Your task to perform on an android device: Show me popular videos on Youtube Image 0: 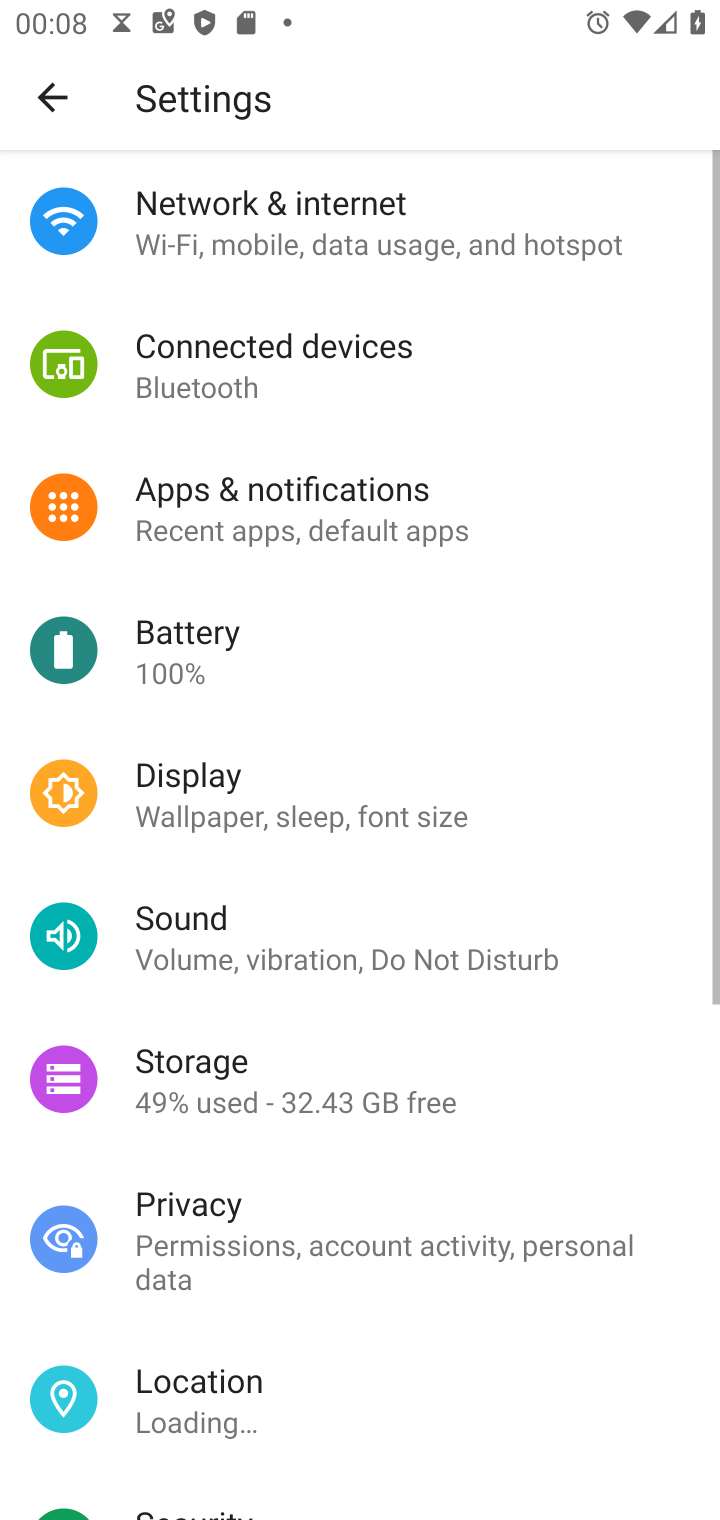
Step 0: press home button
Your task to perform on an android device: Show me popular videos on Youtube Image 1: 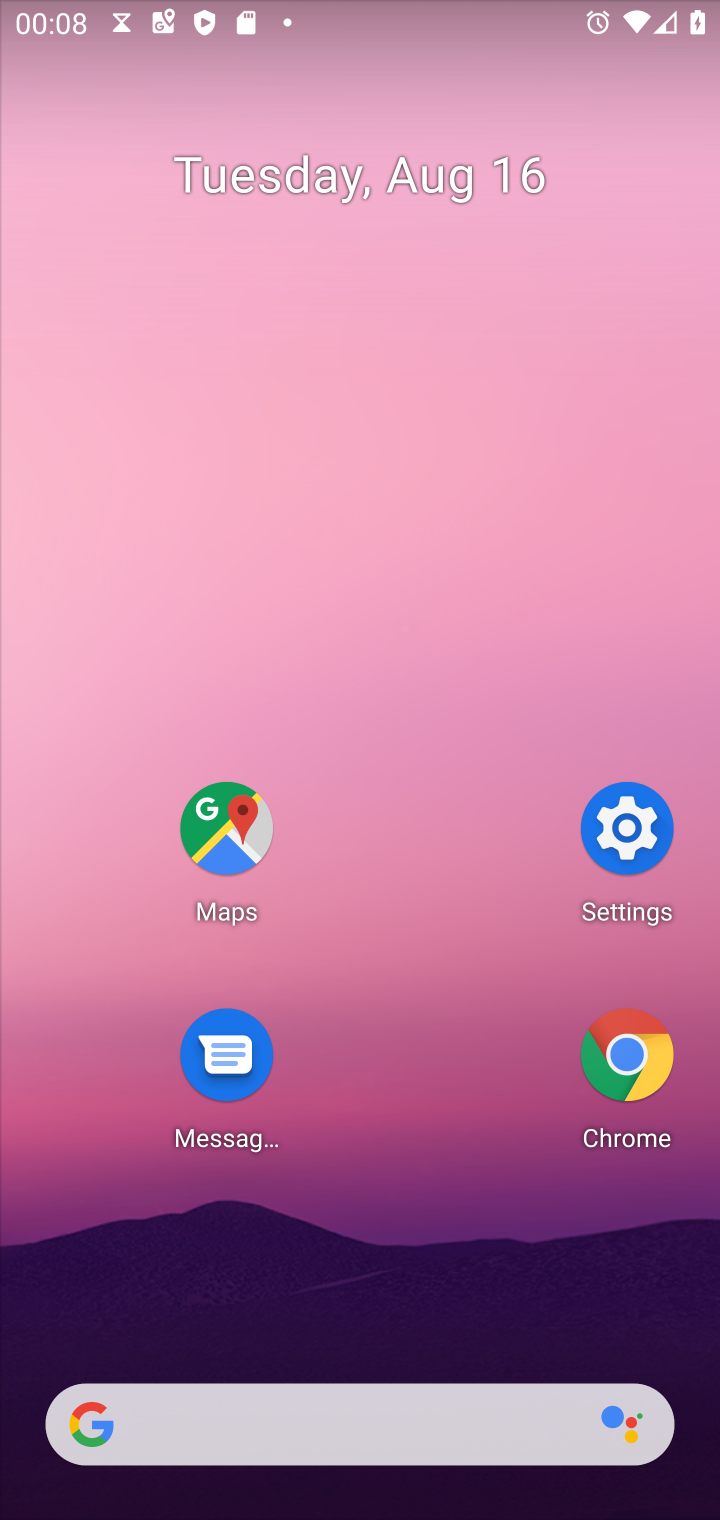
Step 1: drag from (442, 1175) to (497, 121)
Your task to perform on an android device: Show me popular videos on Youtube Image 2: 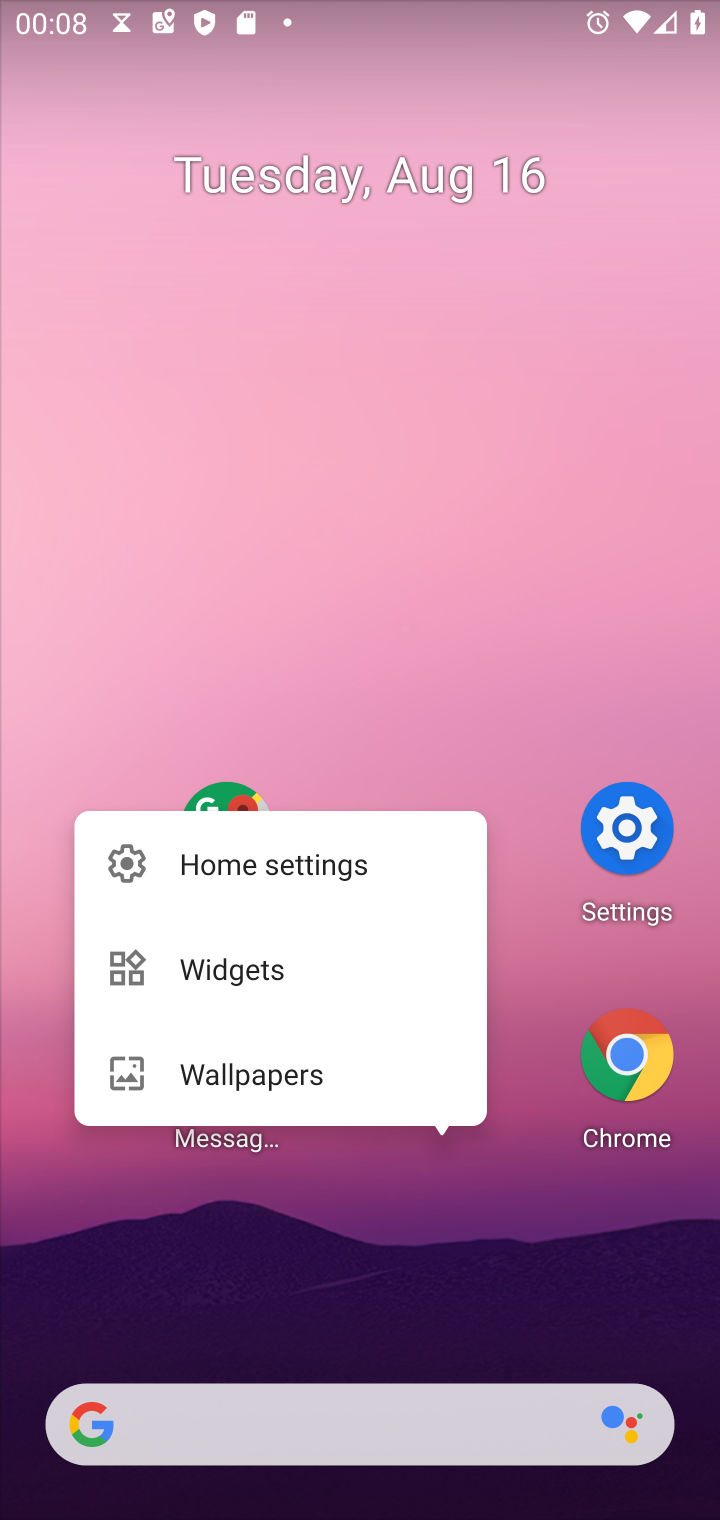
Step 2: drag from (415, 924) to (376, 110)
Your task to perform on an android device: Show me popular videos on Youtube Image 3: 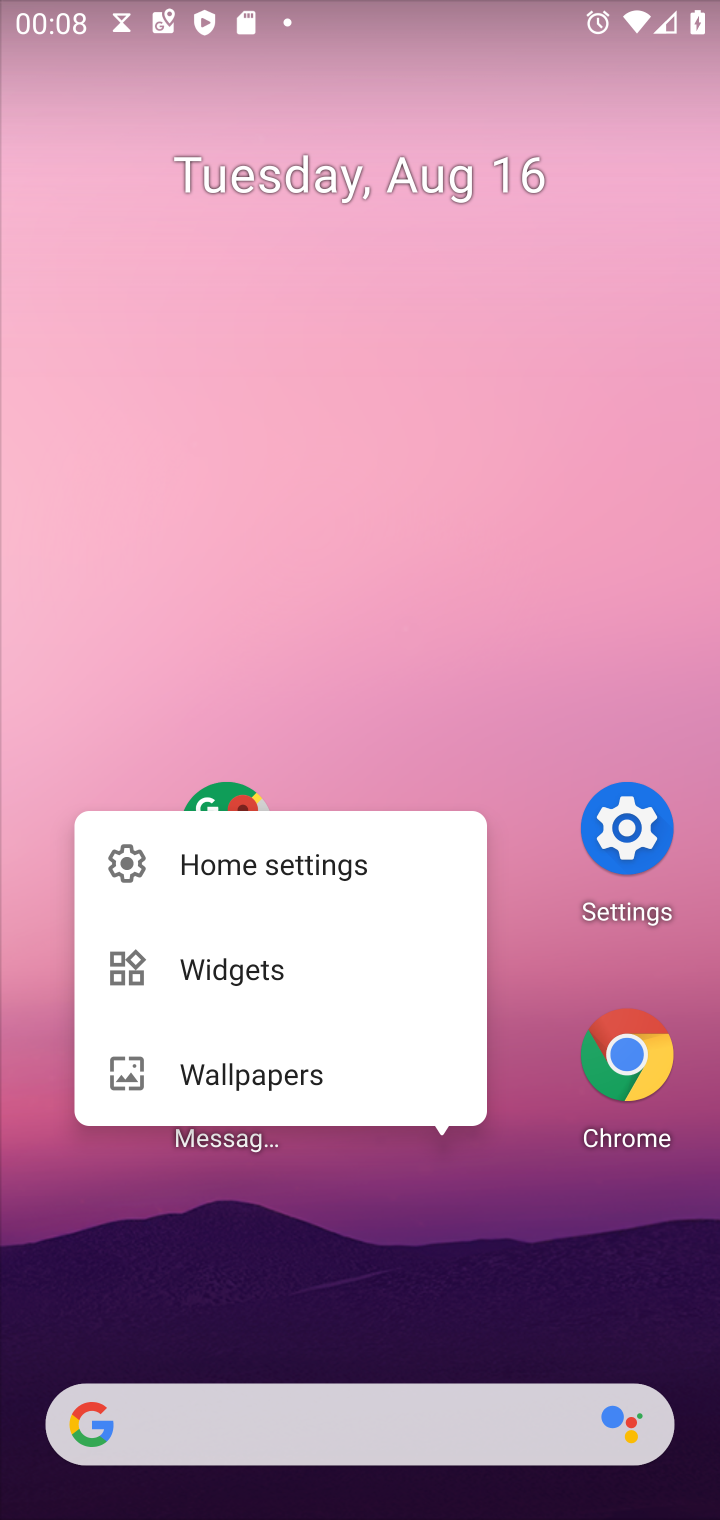
Step 3: press home button
Your task to perform on an android device: Show me popular videos on Youtube Image 4: 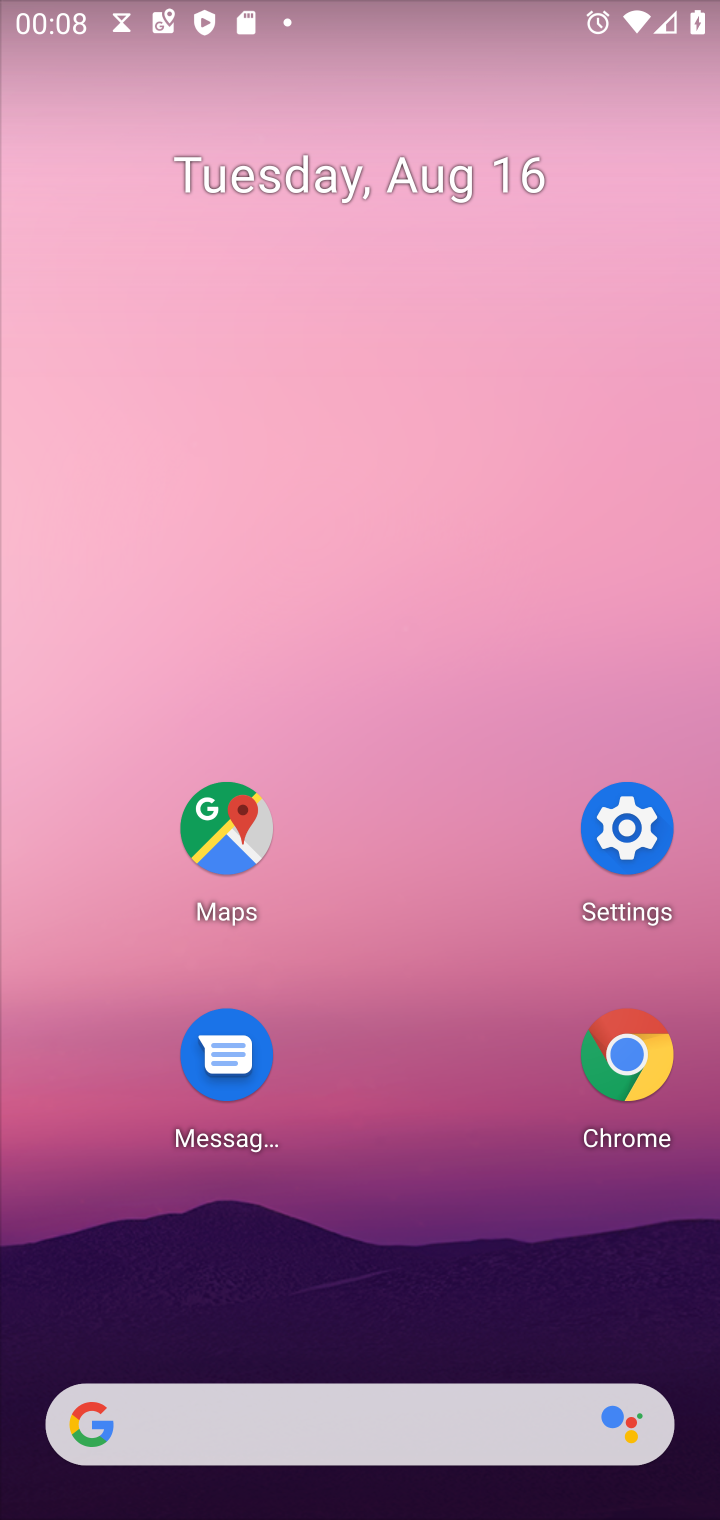
Step 4: drag from (374, 1316) to (435, 213)
Your task to perform on an android device: Show me popular videos on Youtube Image 5: 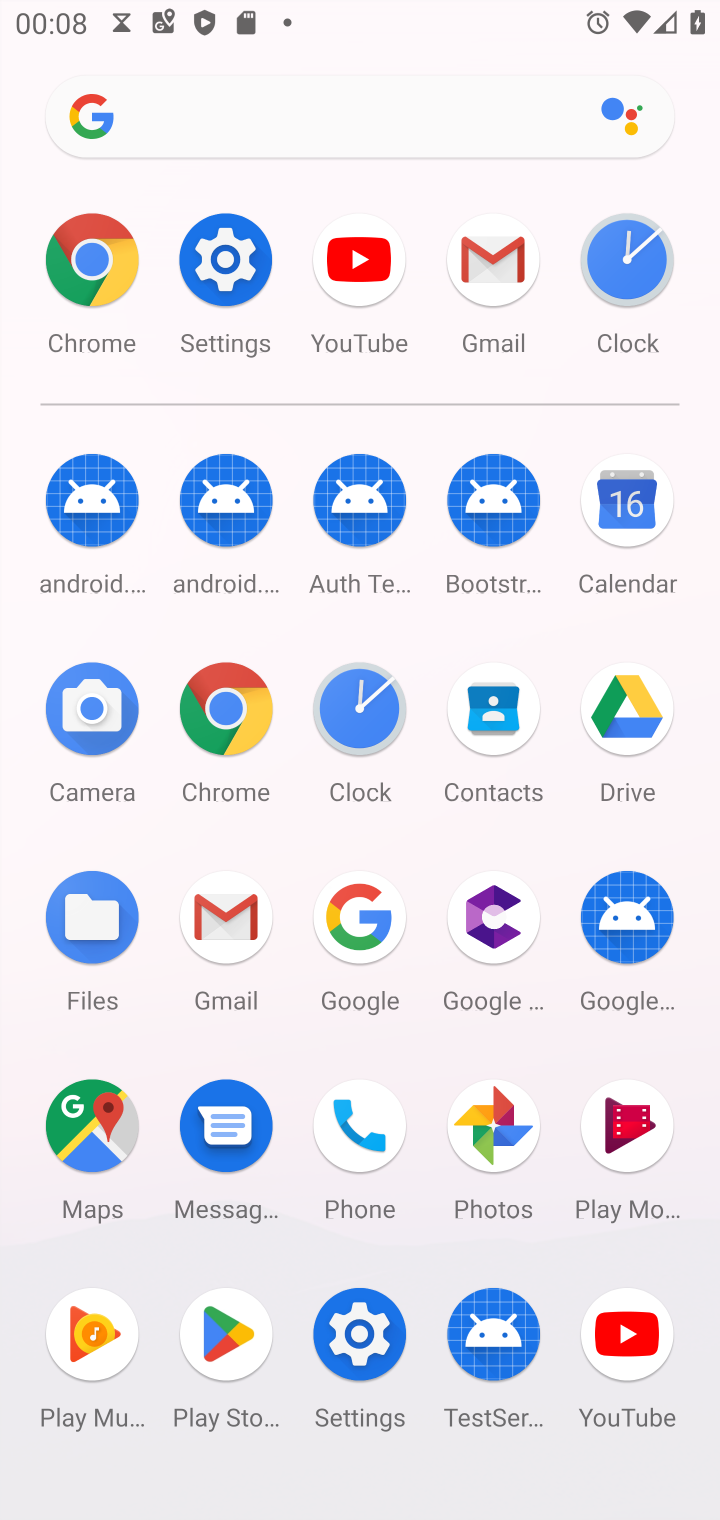
Step 5: click (613, 1333)
Your task to perform on an android device: Show me popular videos on Youtube Image 6: 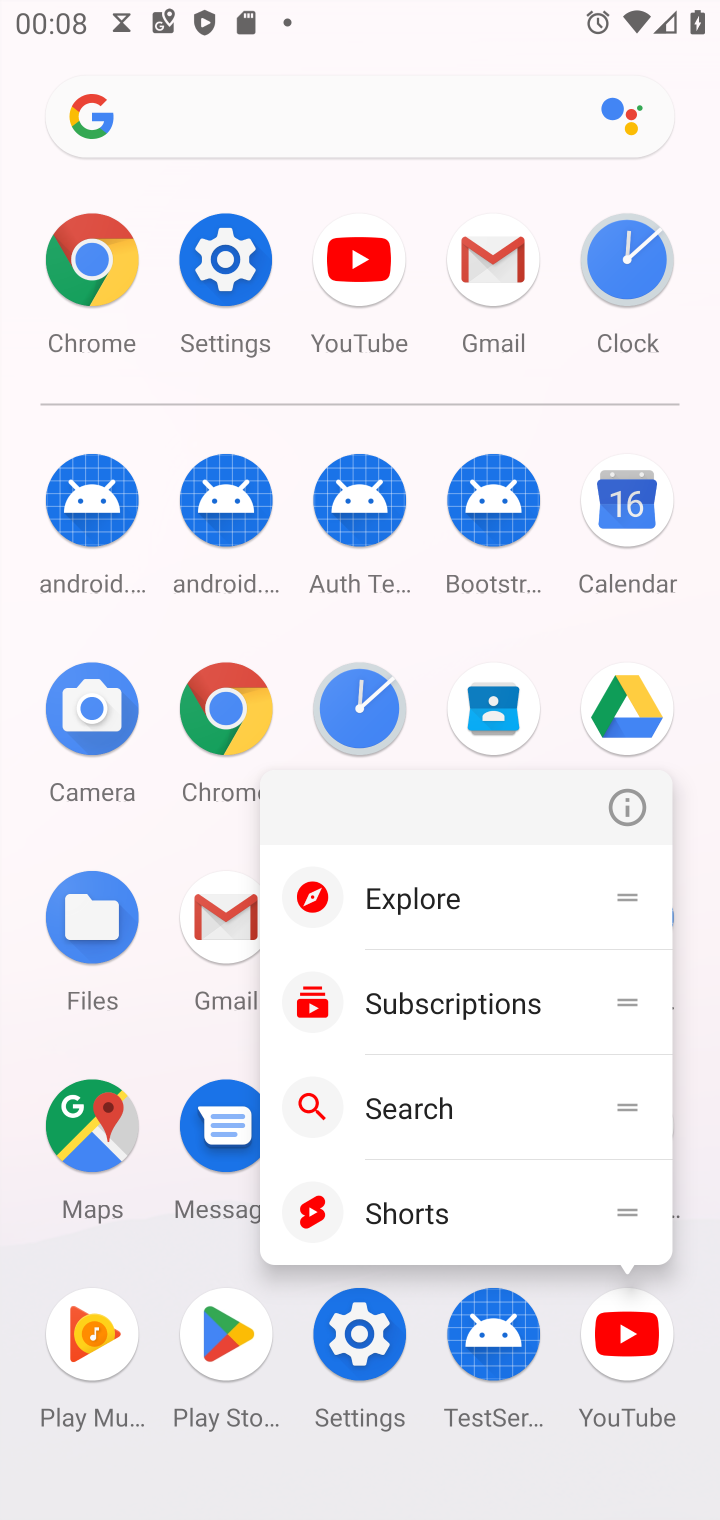
Step 6: click (613, 1333)
Your task to perform on an android device: Show me popular videos on Youtube Image 7: 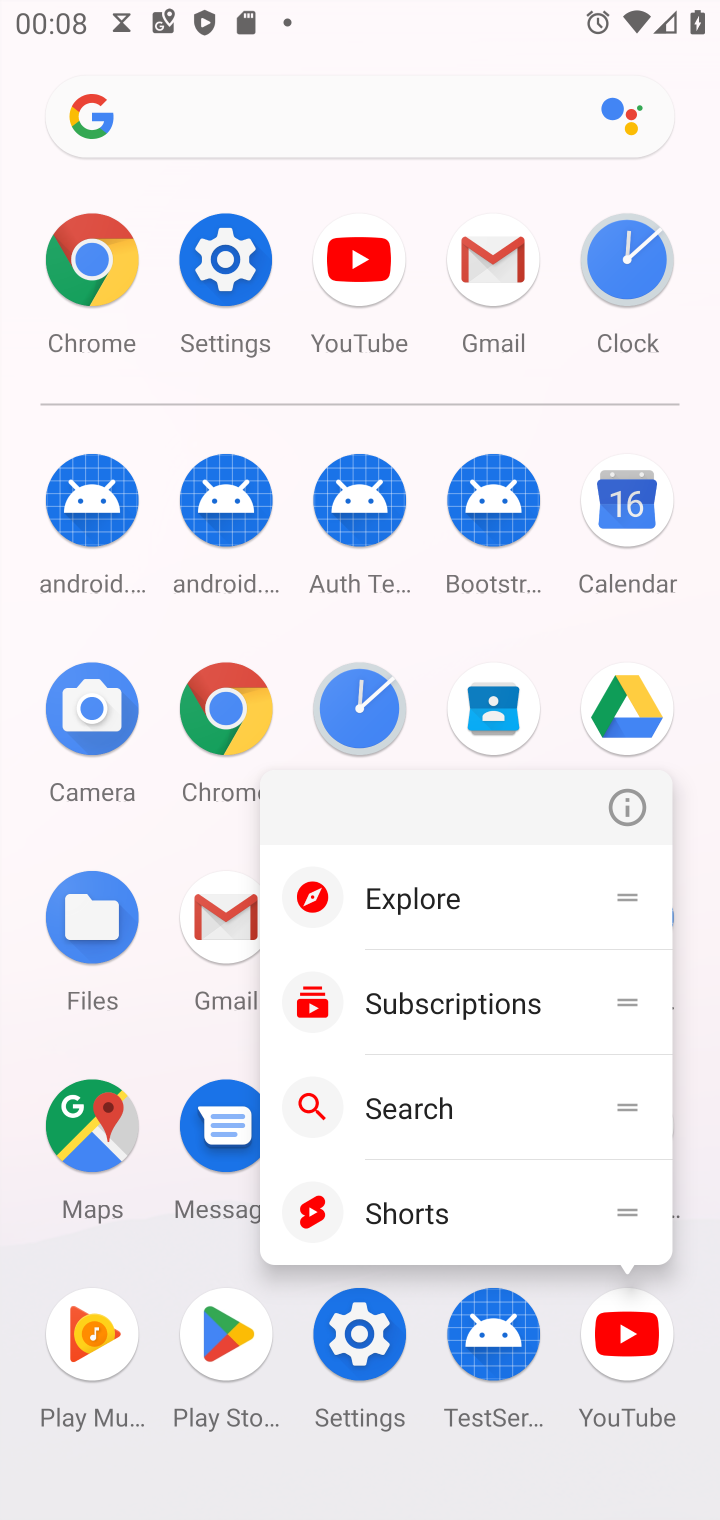
Step 7: click (613, 1333)
Your task to perform on an android device: Show me popular videos on Youtube Image 8: 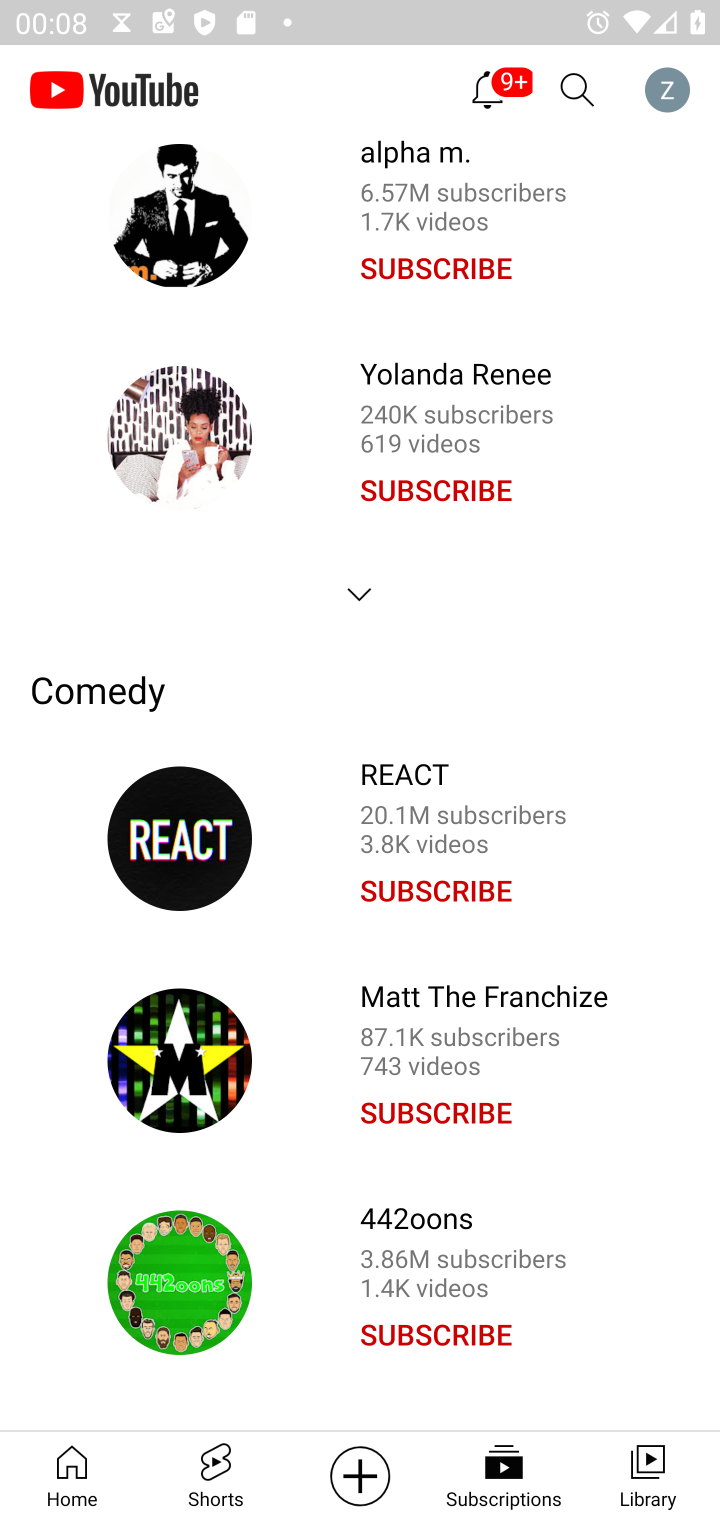
Step 8: click (69, 1467)
Your task to perform on an android device: Show me popular videos on Youtube Image 9: 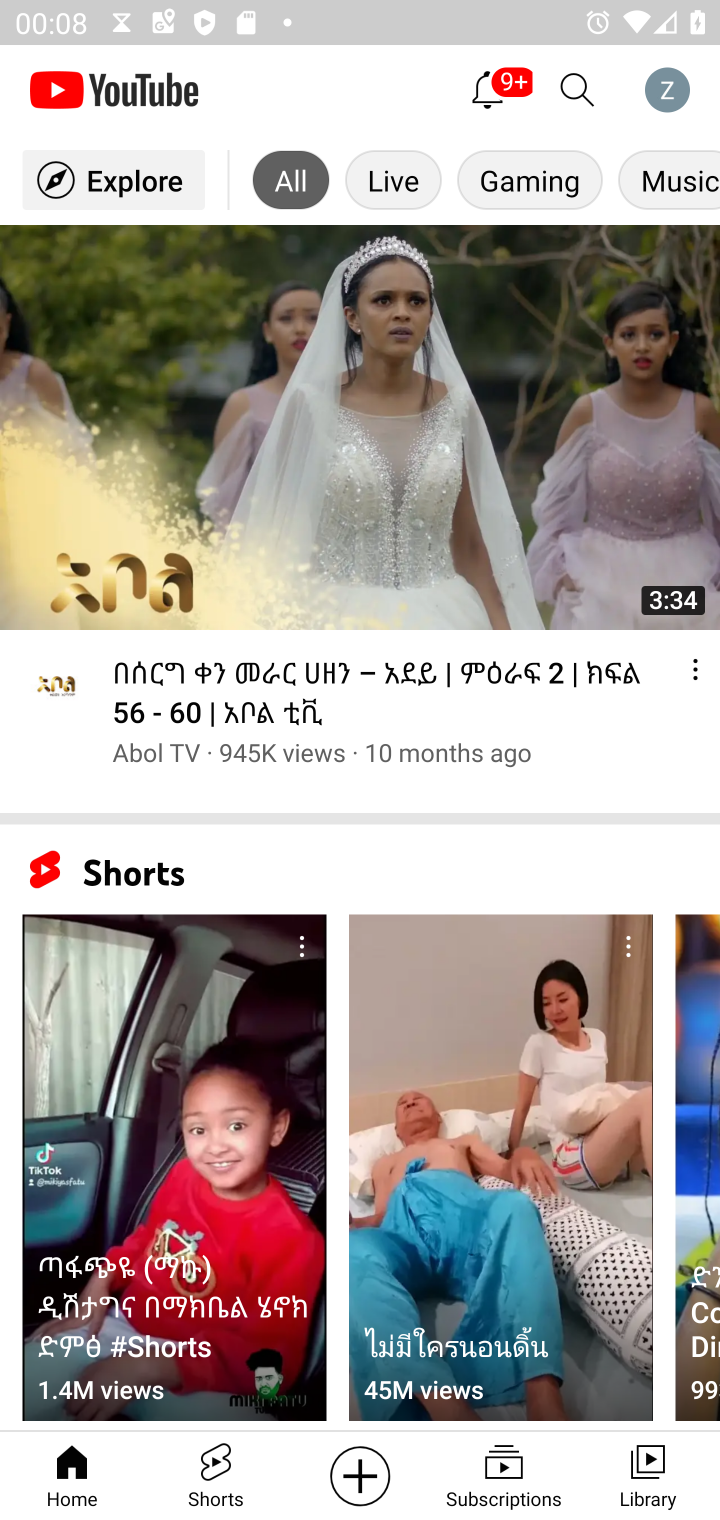
Step 9: task complete